Your task to perform on an android device: refresh tabs in the chrome app Image 0: 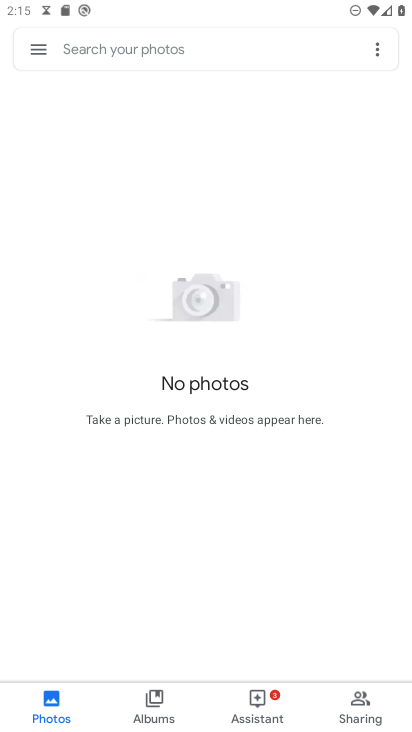
Step 0: press home button
Your task to perform on an android device: refresh tabs in the chrome app Image 1: 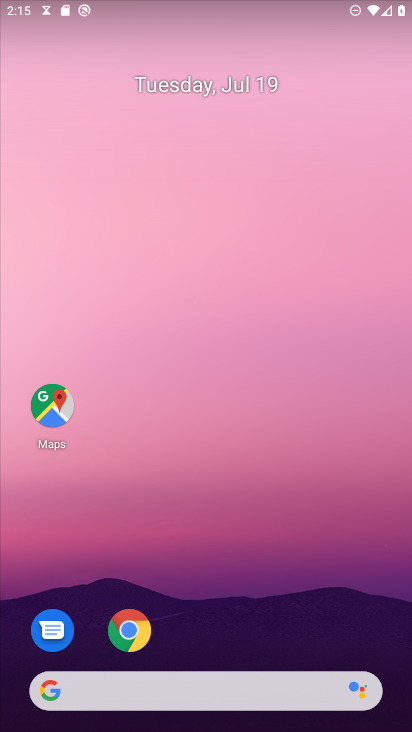
Step 1: click (128, 636)
Your task to perform on an android device: refresh tabs in the chrome app Image 2: 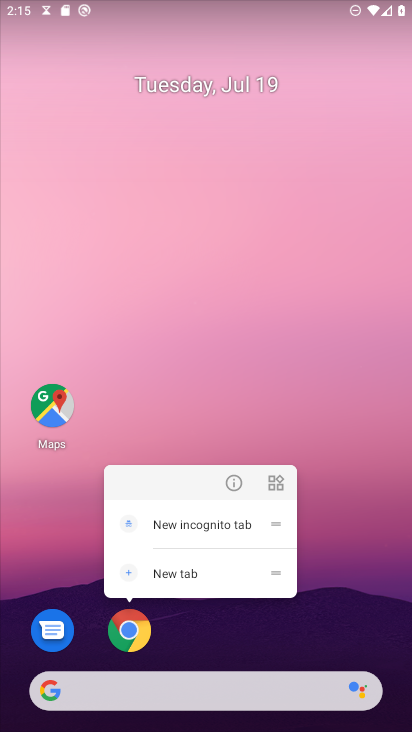
Step 2: click (131, 636)
Your task to perform on an android device: refresh tabs in the chrome app Image 3: 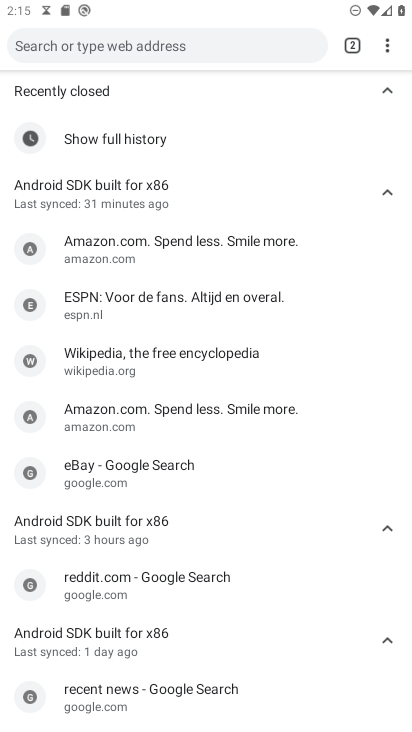
Step 3: click (384, 54)
Your task to perform on an android device: refresh tabs in the chrome app Image 4: 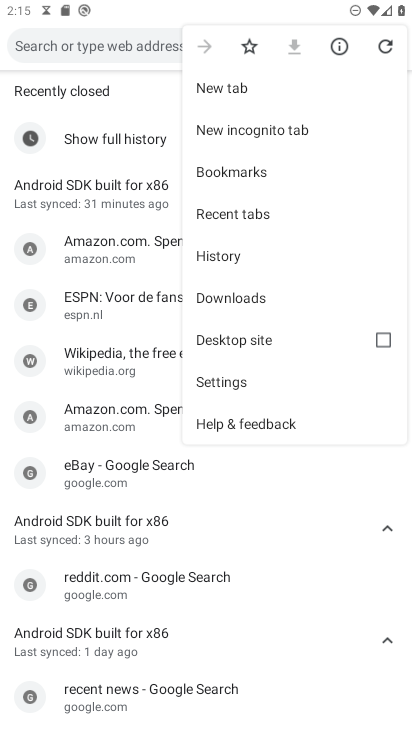
Step 4: click (379, 45)
Your task to perform on an android device: refresh tabs in the chrome app Image 5: 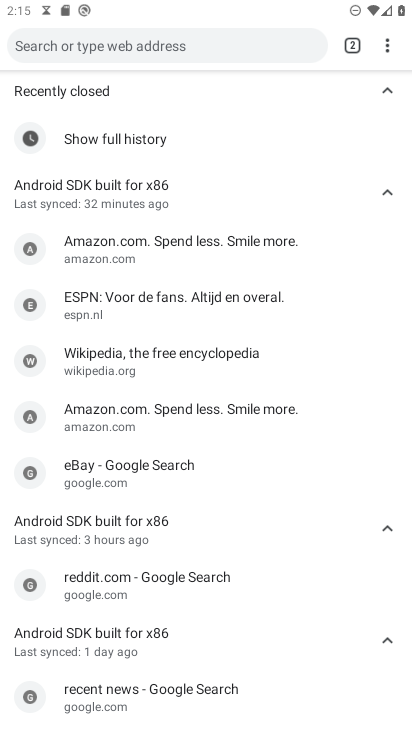
Step 5: task complete